Your task to perform on an android device: Search for hotels in Boston Image 0: 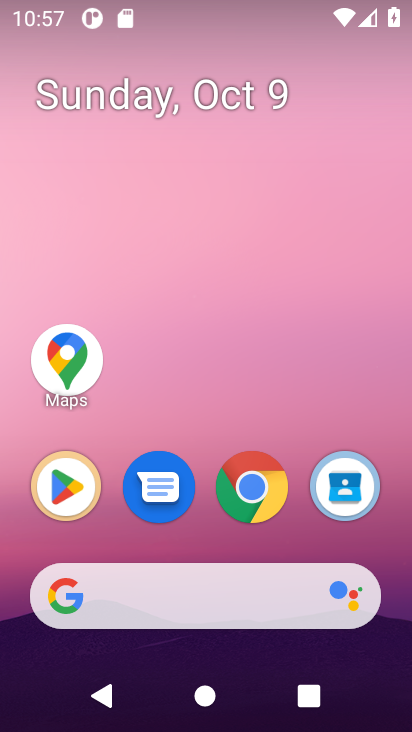
Step 0: click (256, 482)
Your task to perform on an android device: Search for hotels in Boston Image 1: 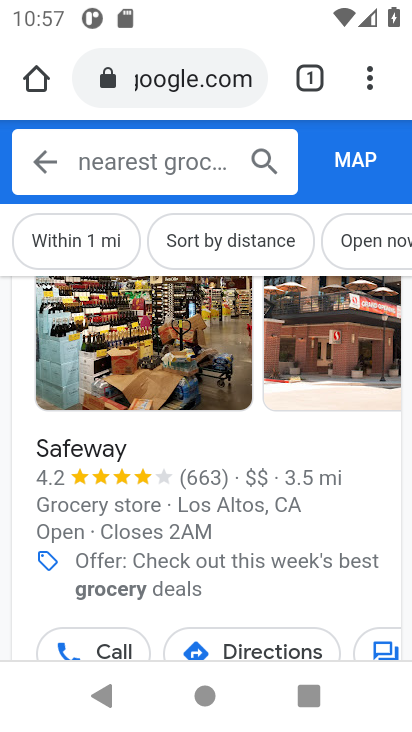
Step 1: click (139, 86)
Your task to perform on an android device: Search for hotels in Boston Image 2: 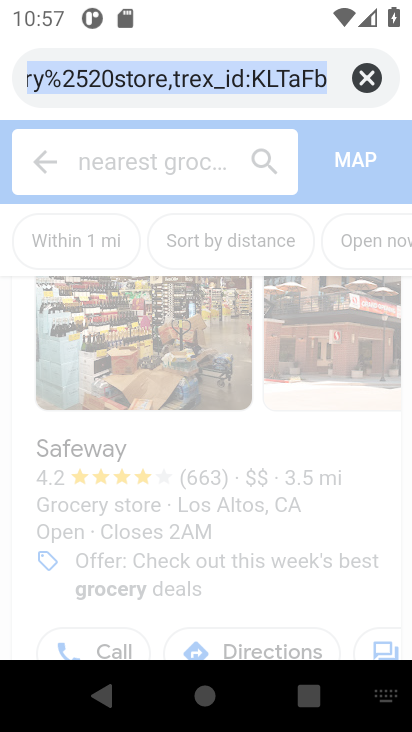
Step 2: type "hotels in boston"
Your task to perform on an android device: Search for hotels in Boston Image 3: 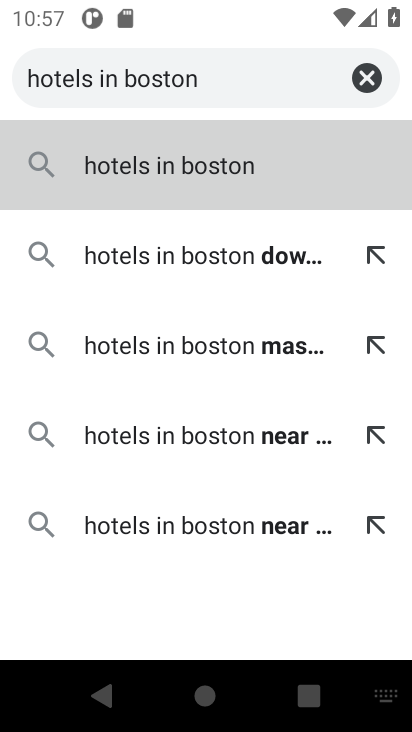
Step 3: press enter
Your task to perform on an android device: Search for hotels in Boston Image 4: 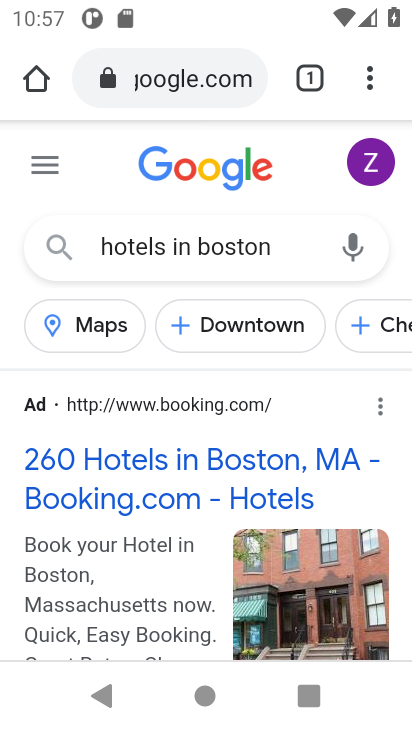
Step 4: drag from (159, 590) to (149, 250)
Your task to perform on an android device: Search for hotels in Boston Image 5: 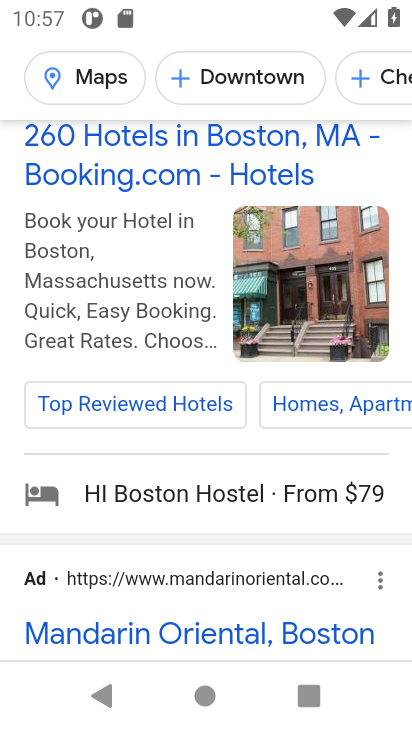
Step 5: click (201, 553)
Your task to perform on an android device: Search for hotels in Boston Image 6: 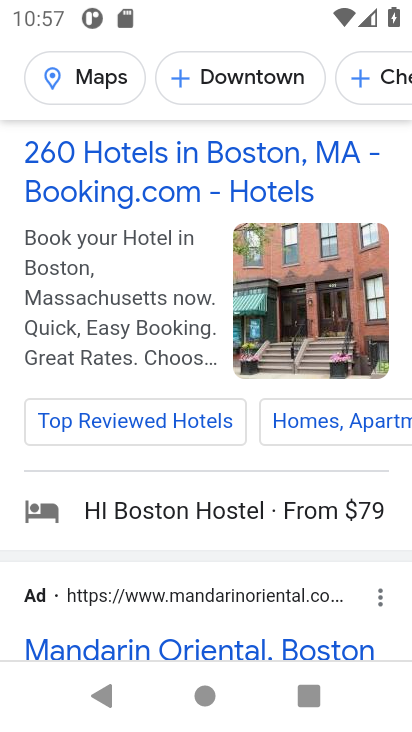
Step 6: click (146, 179)
Your task to perform on an android device: Search for hotels in Boston Image 7: 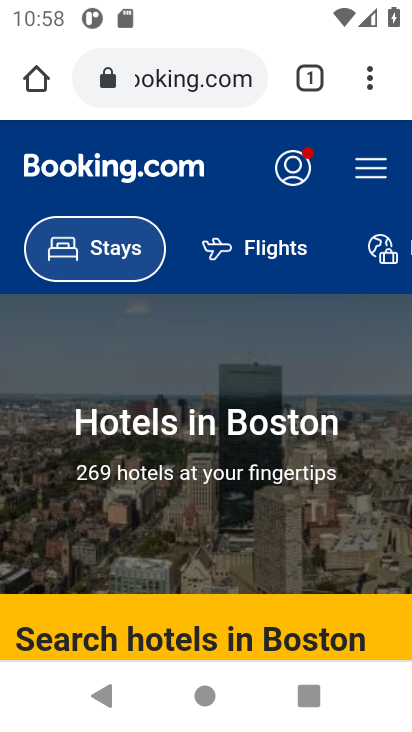
Step 7: drag from (293, 574) to (272, 207)
Your task to perform on an android device: Search for hotels in Boston Image 8: 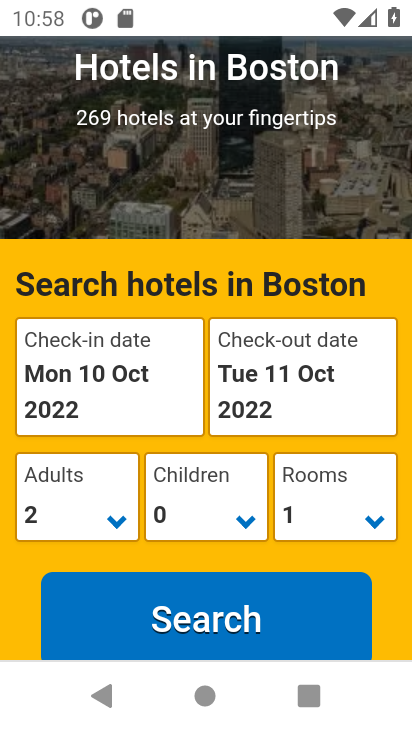
Step 8: drag from (278, 612) to (240, 118)
Your task to perform on an android device: Search for hotels in Boston Image 9: 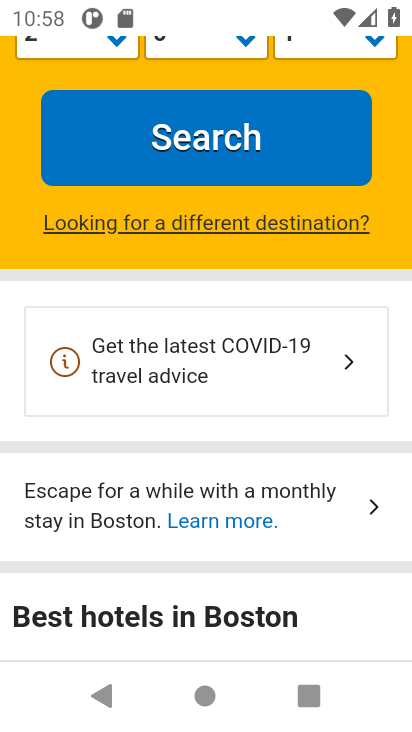
Step 9: drag from (239, 525) to (206, 166)
Your task to perform on an android device: Search for hotels in Boston Image 10: 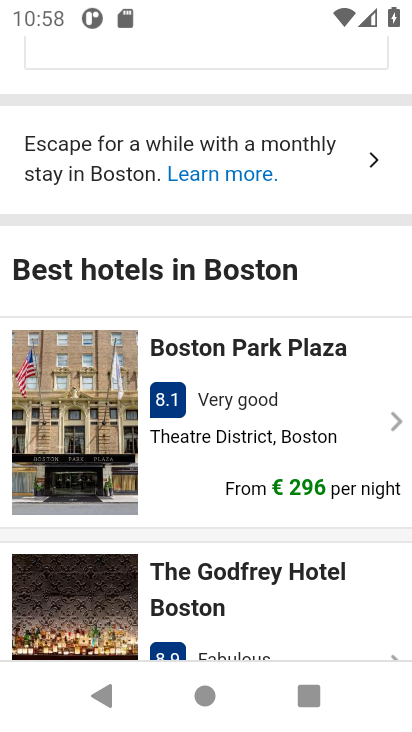
Step 10: drag from (222, 515) to (221, 242)
Your task to perform on an android device: Search for hotels in Boston Image 11: 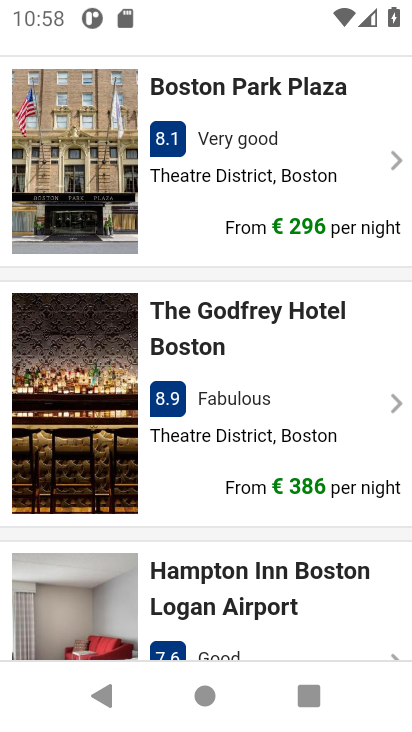
Step 11: drag from (279, 548) to (240, 274)
Your task to perform on an android device: Search for hotels in Boston Image 12: 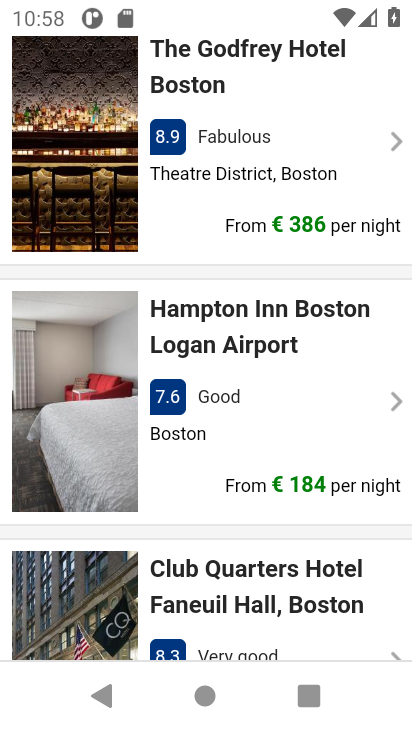
Step 12: click (198, 312)
Your task to perform on an android device: Search for hotels in Boston Image 13: 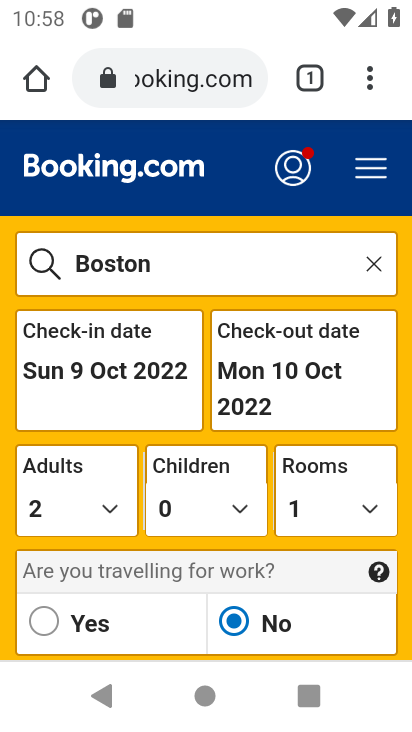
Step 13: task complete